Your task to perform on an android device: Go to battery settings Image 0: 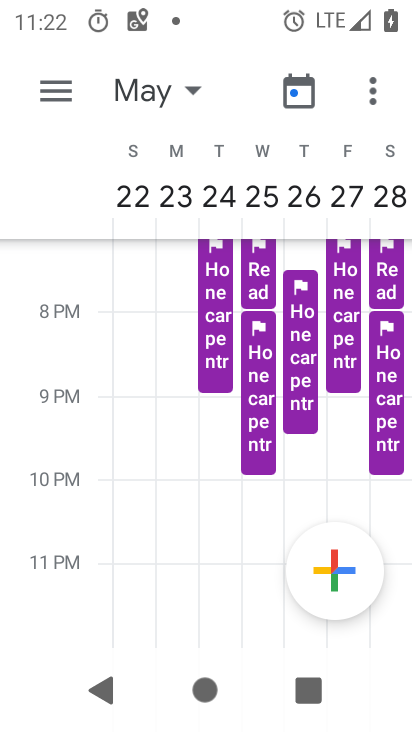
Step 0: press home button
Your task to perform on an android device: Go to battery settings Image 1: 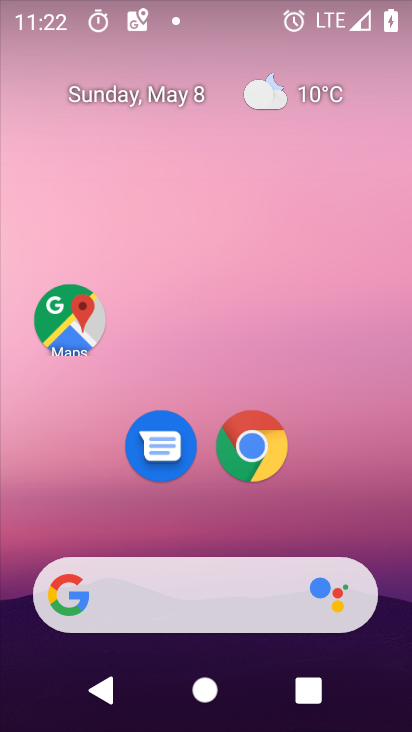
Step 1: drag from (384, 529) to (401, 2)
Your task to perform on an android device: Go to battery settings Image 2: 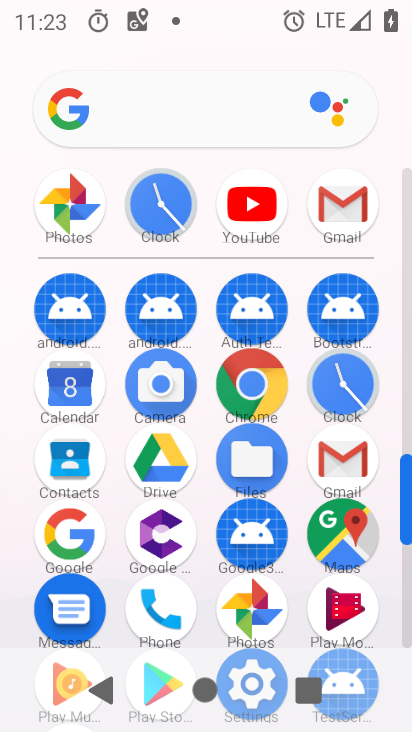
Step 2: drag from (408, 453) to (408, 400)
Your task to perform on an android device: Go to battery settings Image 3: 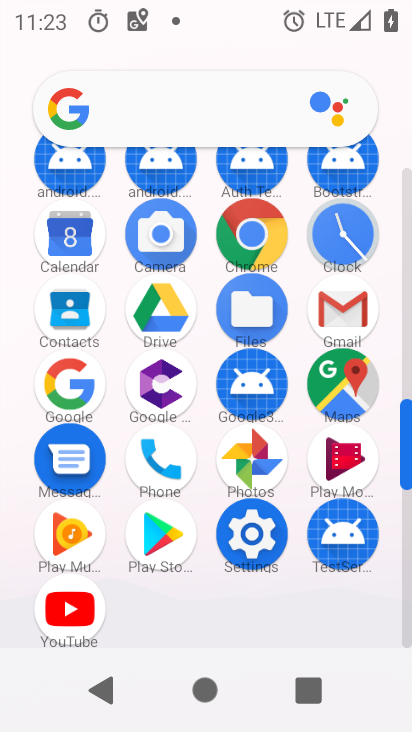
Step 3: click (261, 534)
Your task to perform on an android device: Go to battery settings Image 4: 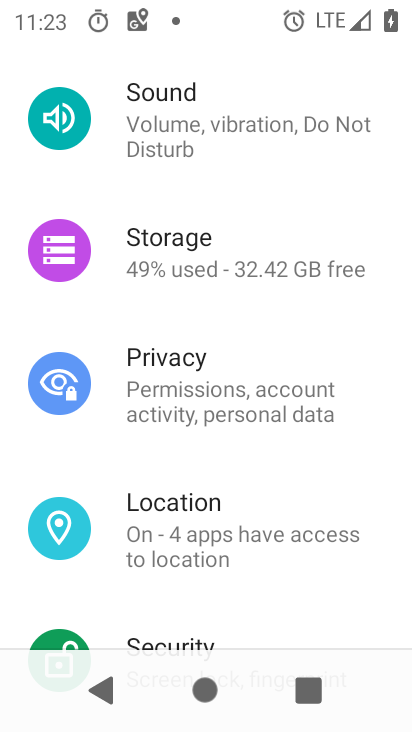
Step 4: drag from (254, 225) to (257, 483)
Your task to perform on an android device: Go to battery settings Image 5: 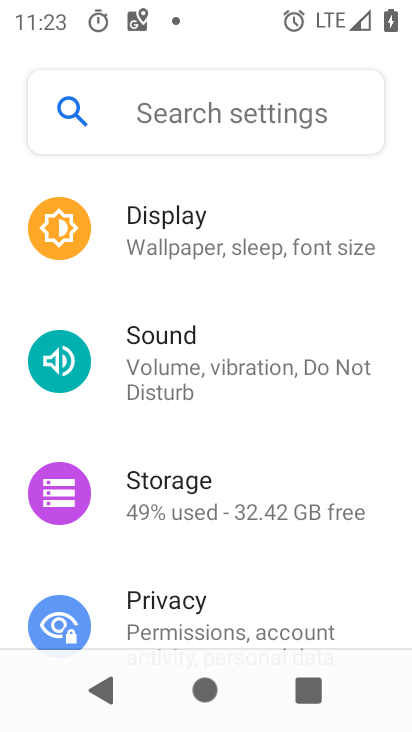
Step 5: drag from (239, 286) to (227, 528)
Your task to perform on an android device: Go to battery settings Image 6: 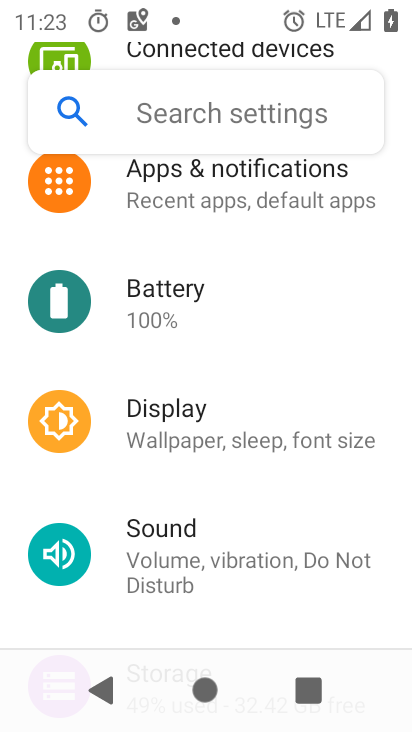
Step 6: click (157, 298)
Your task to perform on an android device: Go to battery settings Image 7: 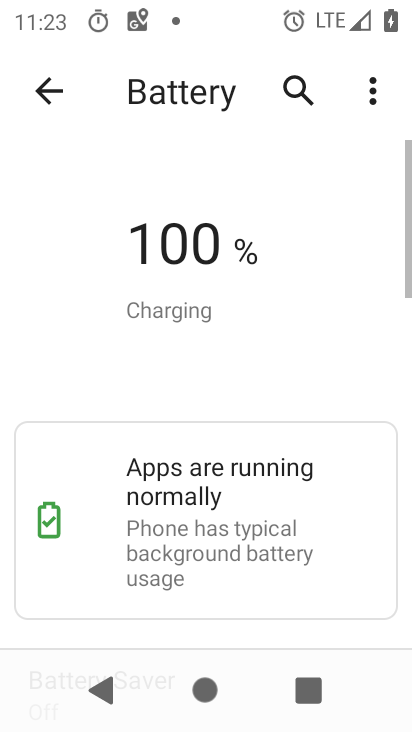
Step 7: task complete